Your task to perform on an android device: Search for usb-a on ebay.com, select the first entry, and add it to the cart. Image 0: 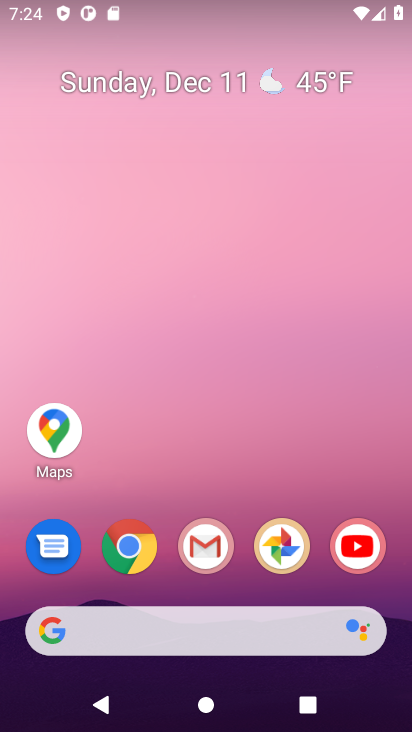
Step 0: click (128, 552)
Your task to perform on an android device: Search for usb-a on ebay.com, select the first entry, and add it to the cart. Image 1: 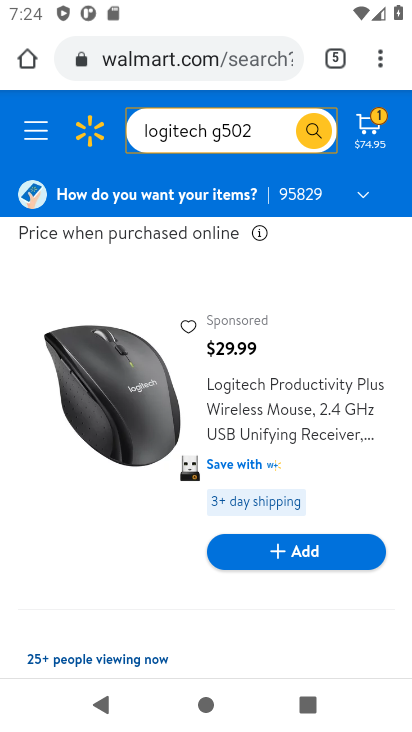
Step 1: click (176, 62)
Your task to perform on an android device: Search for usb-a on ebay.com, select the first entry, and add it to the cart. Image 2: 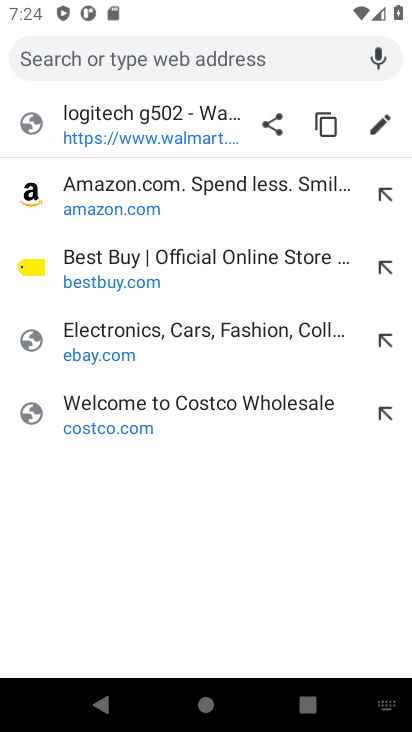
Step 2: click (92, 347)
Your task to perform on an android device: Search for usb-a on ebay.com, select the first entry, and add it to the cart. Image 3: 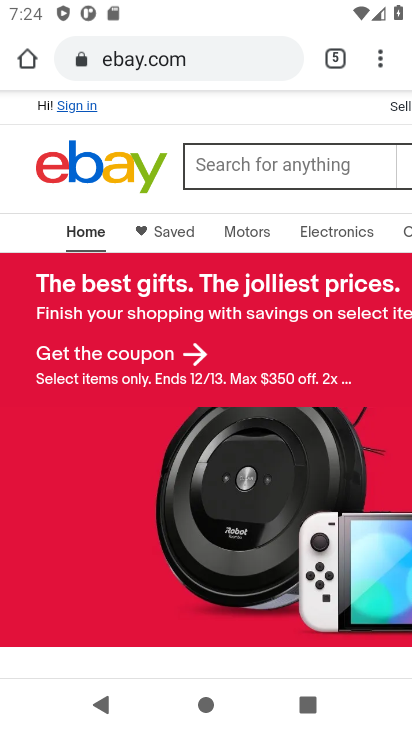
Step 3: click (201, 171)
Your task to perform on an android device: Search for usb-a on ebay.com, select the first entry, and add it to the cart. Image 4: 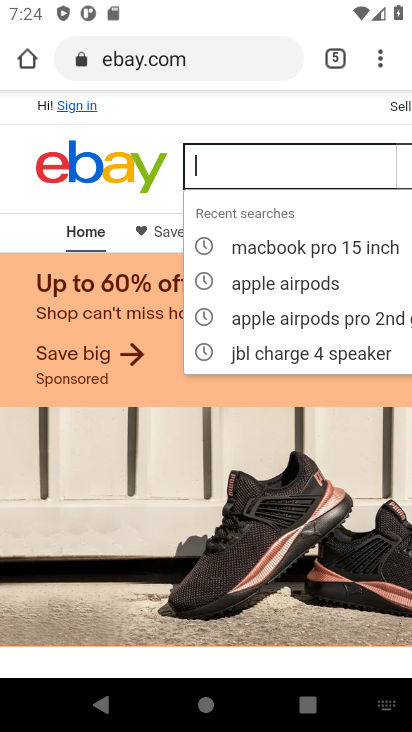
Step 4: type "usb-a"
Your task to perform on an android device: Search for usb-a on ebay.com, select the first entry, and add it to the cart. Image 5: 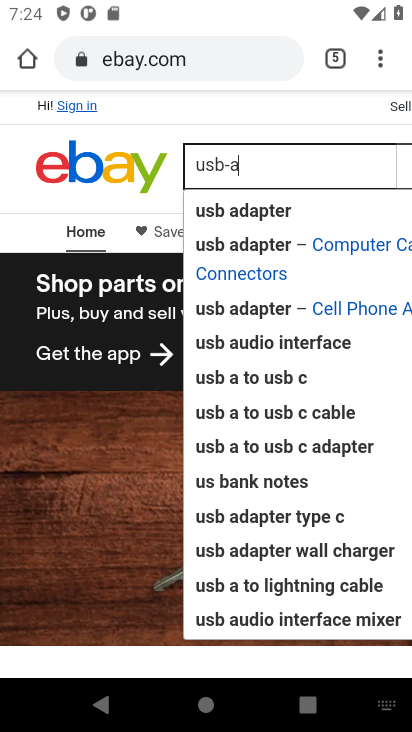
Step 5: drag from (336, 131) to (51, 142)
Your task to perform on an android device: Search for usb-a on ebay.com, select the first entry, and add it to the cart. Image 6: 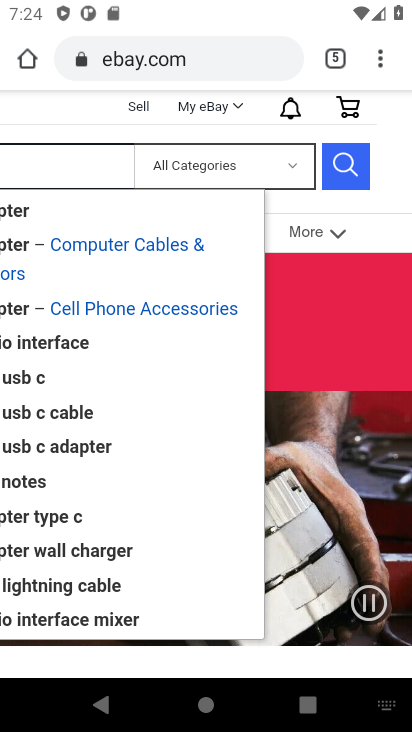
Step 6: click (351, 165)
Your task to perform on an android device: Search for usb-a on ebay.com, select the first entry, and add it to the cart. Image 7: 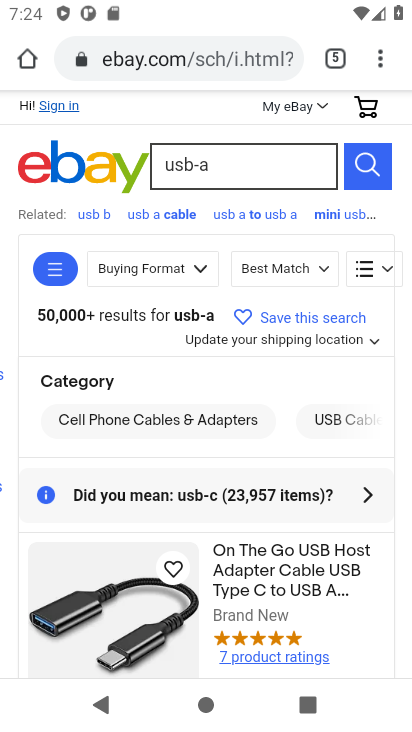
Step 7: drag from (217, 458) to (211, 256)
Your task to perform on an android device: Search for usb-a on ebay.com, select the first entry, and add it to the cart. Image 8: 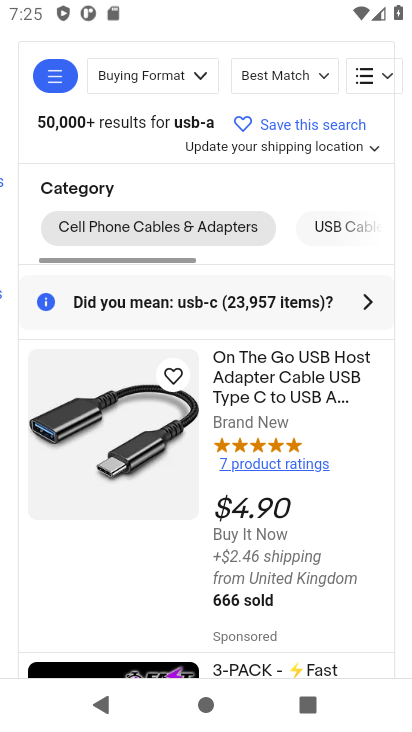
Step 8: click (235, 378)
Your task to perform on an android device: Search for usb-a on ebay.com, select the first entry, and add it to the cart. Image 9: 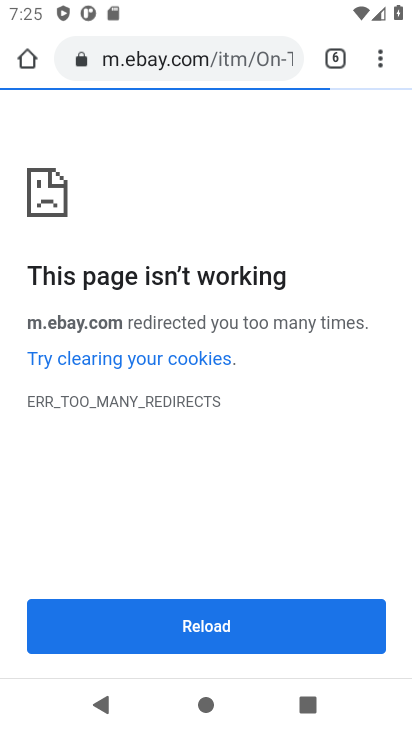
Step 9: task complete